Your task to perform on an android device: Open network settings Image 0: 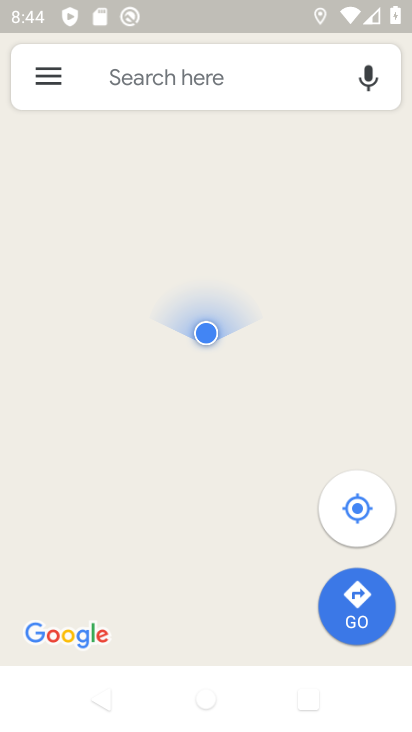
Step 0: press home button
Your task to perform on an android device: Open network settings Image 1: 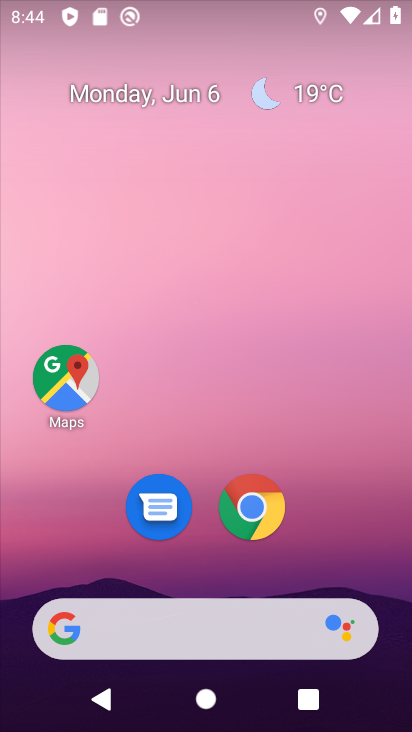
Step 1: drag from (211, 596) to (212, 134)
Your task to perform on an android device: Open network settings Image 2: 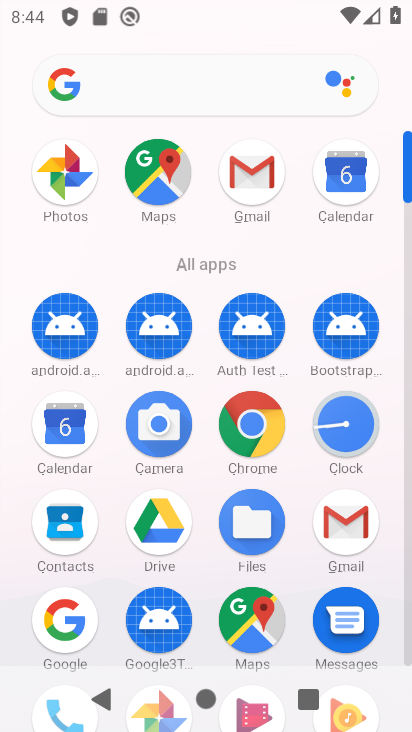
Step 2: drag from (211, 564) to (196, 139)
Your task to perform on an android device: Open network settings Image 3: 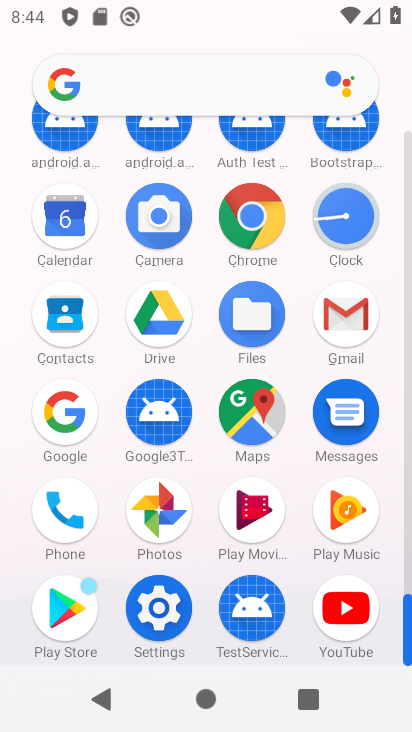
Step 3: click (167, 605)
Your task to perform on an android device: Open network settings Image 4: 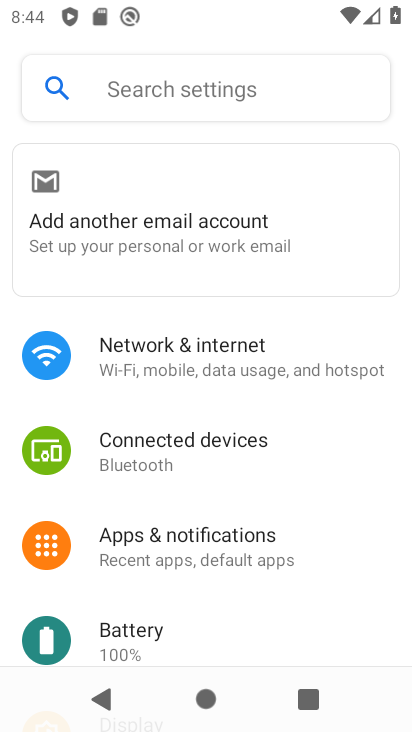
Step 4: click (177, 356)
Your task to perform on an android device: Open network settings Image 5: 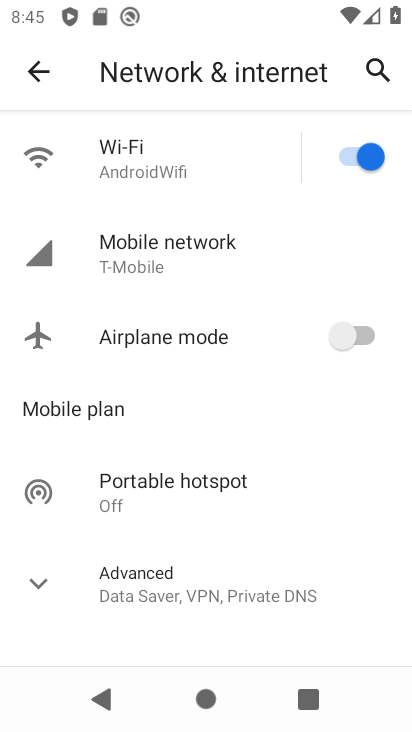
Step 5: task complete